Your task to perform on an android device: turn on the 24-hour format for clock Image 0: 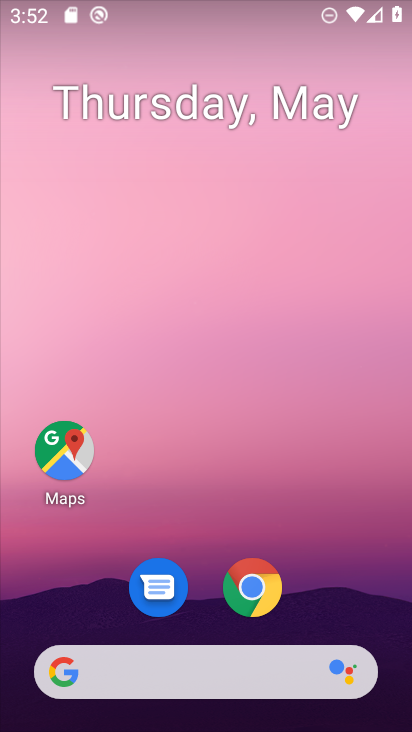
Step 0: drag from (329, 601) to (315, 234)
Your task to perform on an android device: turn on the 24-hour format for clock Image 1: 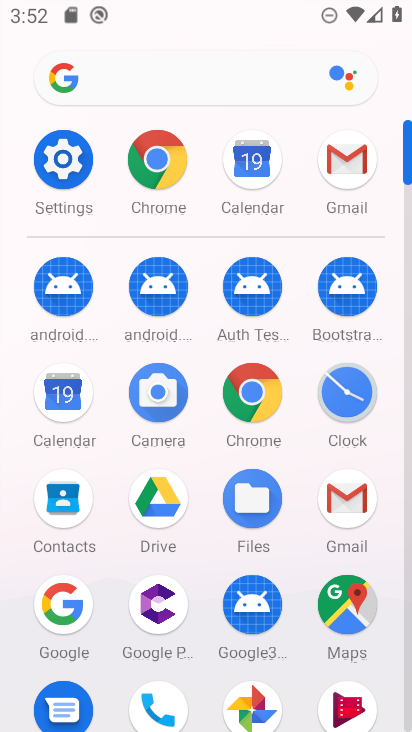
Step 1: click (338, 416)
Your task to perform on an android device: turn on the 24-hour format for clock Image 2: 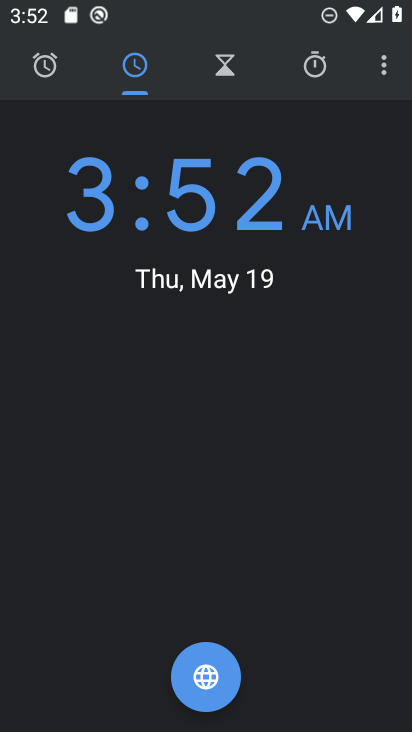
Step 2: click (388, 73)
Your task to perform on an android device: turn on the 24-hour format for clock Image 3: 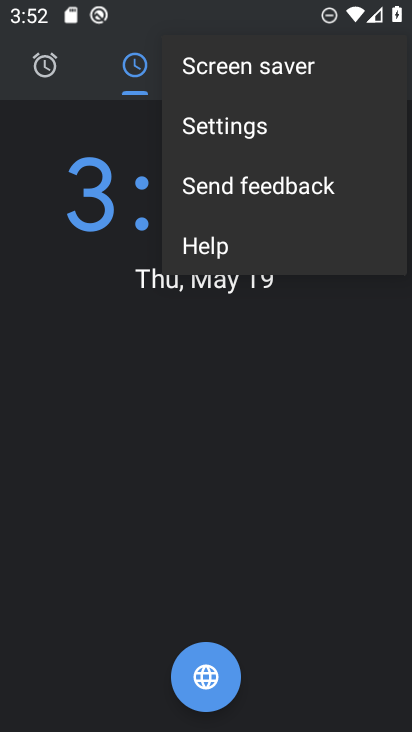
Step 3: click (274, 132)
Your task to perform on an android device: turn on the 24-hour format for clock Image 4: 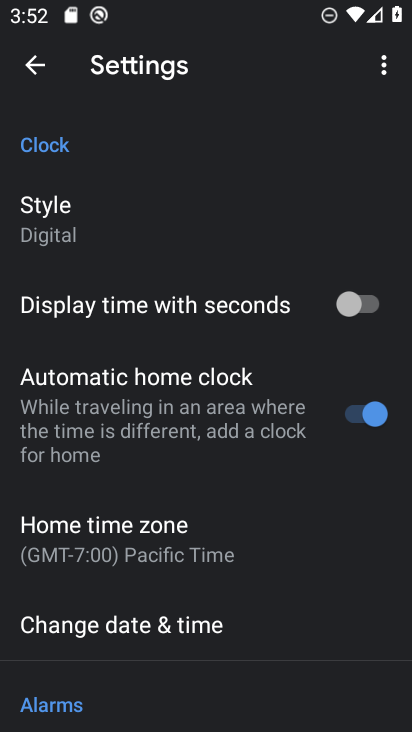
Step 4: drag from (334, 624) to (324, 550)
Your task to perform on an android device: turn on the 24-hour format for clock Image 5: 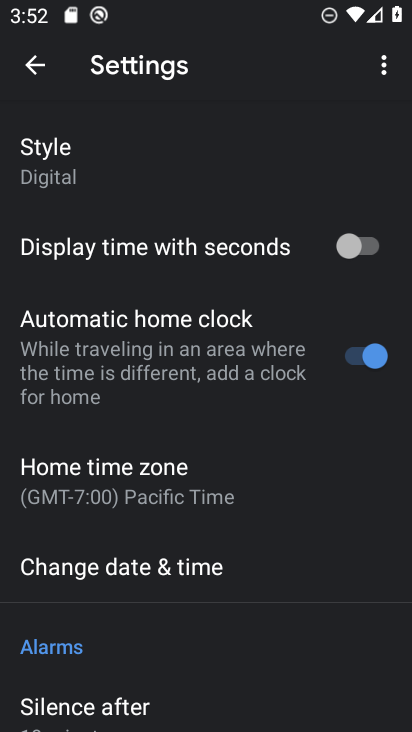
Step 5: click (238, 567)
Your task to perform on an android device: turn on the 24-hour format for clock Image 6: 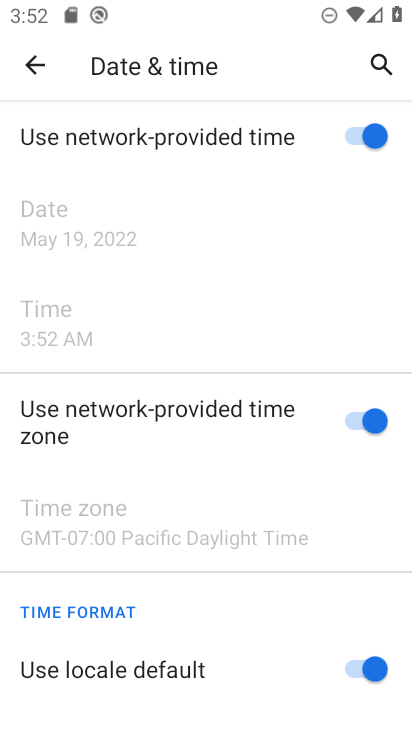
Step 6: drag from (253, 627) to (253, 469)
Your task to perform on an android device: turn on the 24-hour format for clock Image 7: 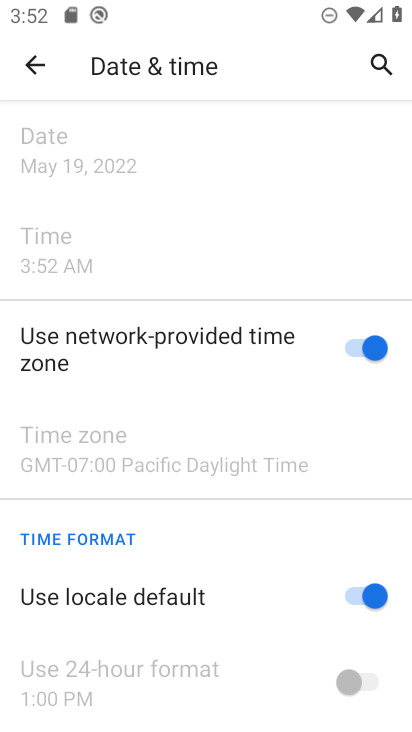
Step 7: click (368, 614)
Your task to perform on an android device: turn on the 24-hour format for clock Image 8: 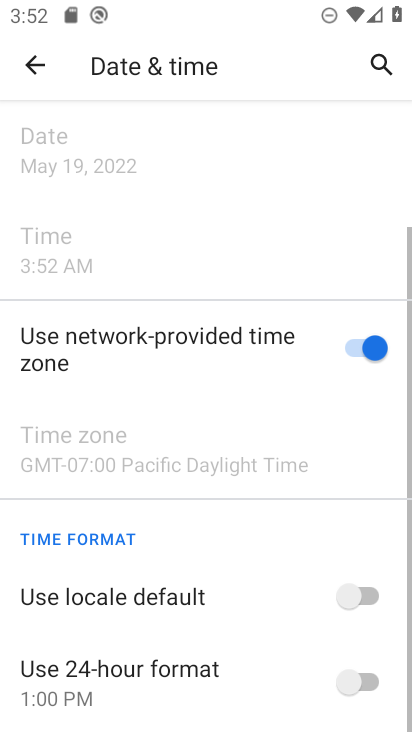
Step 8: click (354, 689)
Your task to perform on an android device: turn on the 24-hour format for clock Image 9: 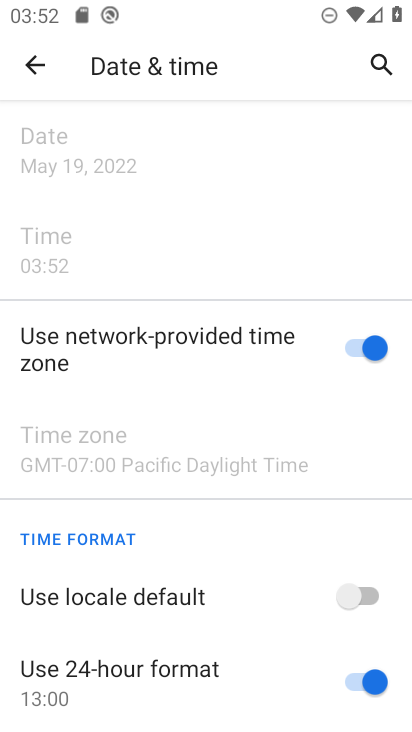
Step 9: task complete